Your task to perform on an android device: Open maps Image 0: 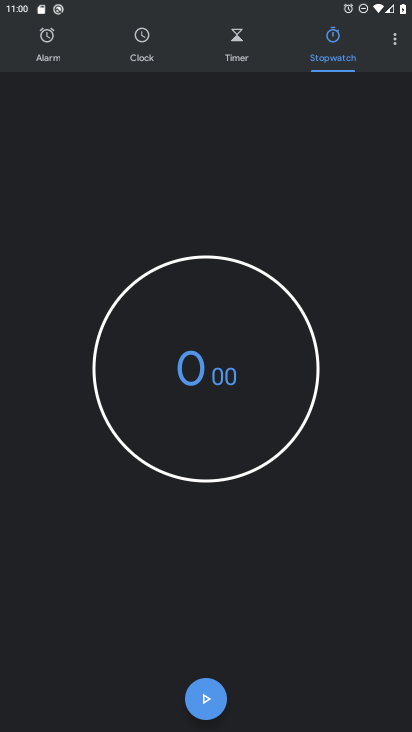
Step 0: press home button
Your task to perform on an android device: Open maps Image 1: 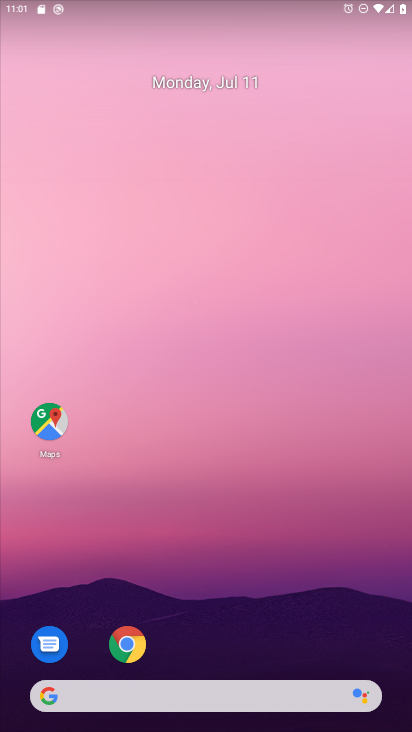
Step 1: click (56, 433)
Your task to perform on an android device: Open maps Image 2: 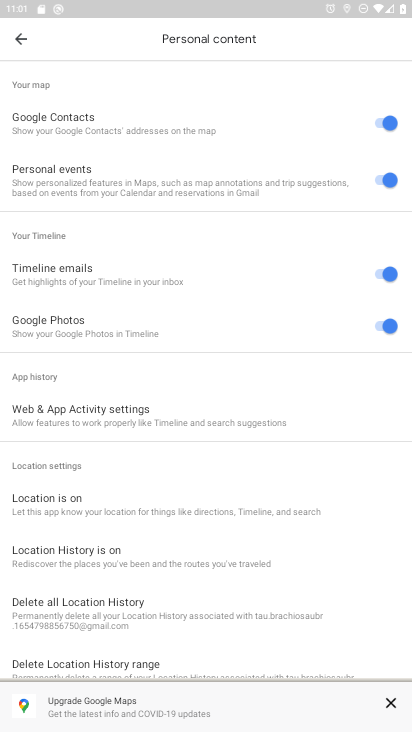
Step 2: task complete